Your task to perform on an android device: Open my contact list Image 0: 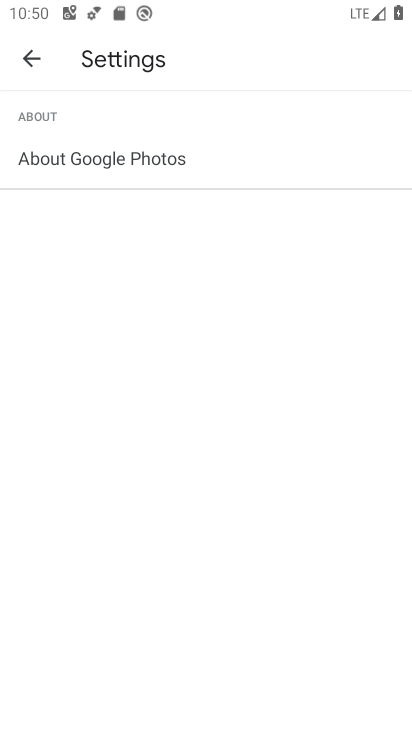
Step 0: press home button
Your task to perform on an android device: Open my contact list Image 1: 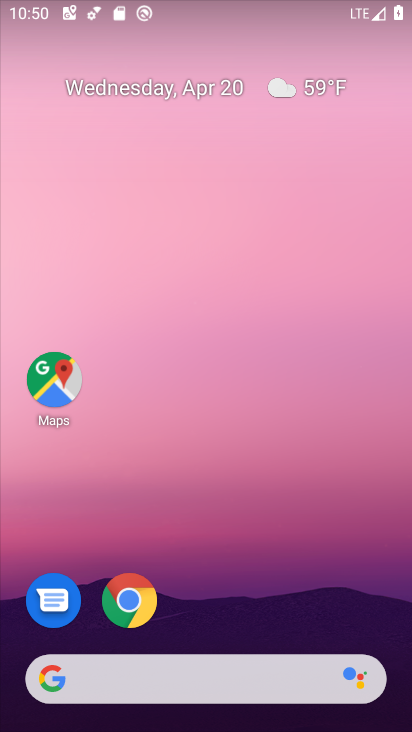
Step 1: drag from (252, 562) to (277, 110)
Your task to perform on an android device: Open my contact list Image 2: 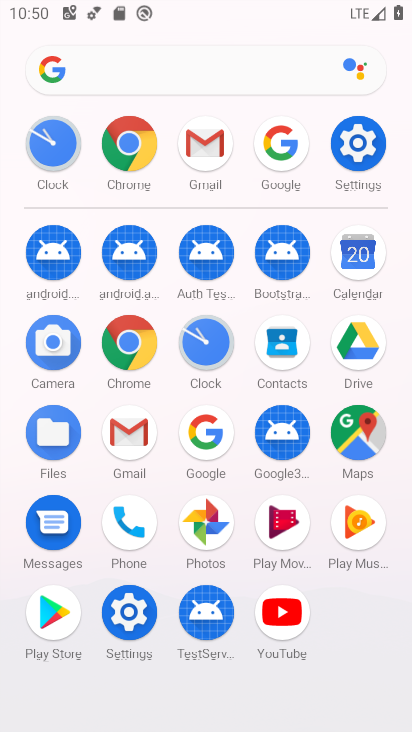
Step 2: click (287, 346)
Your task to perform on an android device: Open my contact list Image 3: 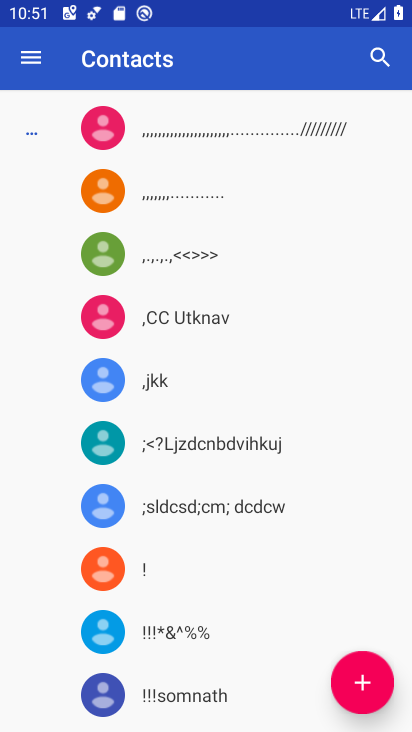
Step 3: task complete